Your task to perform on an android device: open app "Google Keep" Image 0: 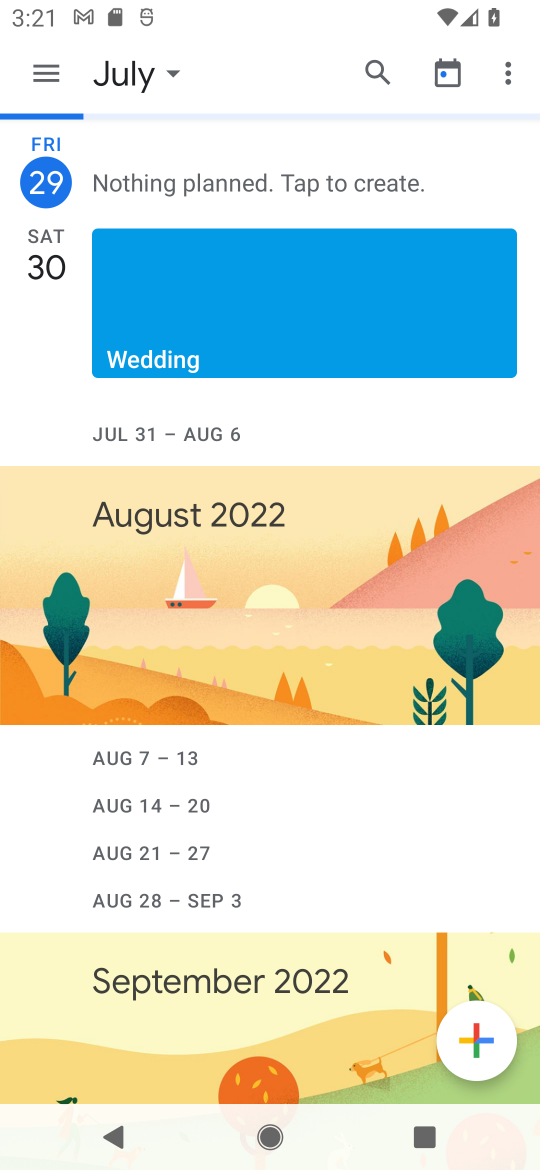
Step 0: press home button
Your task to perform on an android device: open app "Google Keep" Image 1: 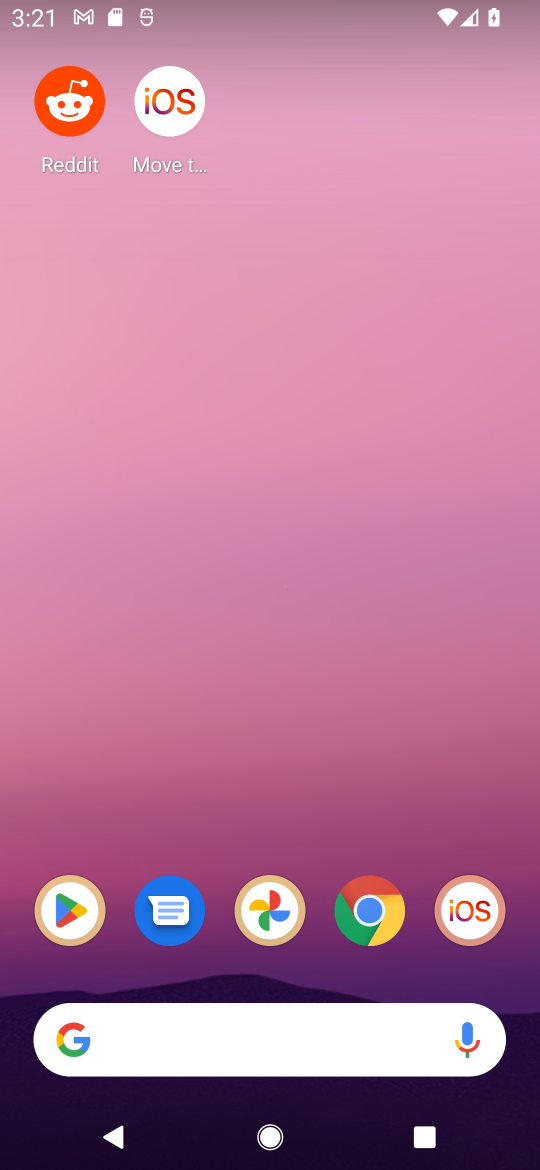
Step 1: drag from (233, 829) to (272, 43)
Your task to perform on an android device: open app "Google Keep" Image 2: 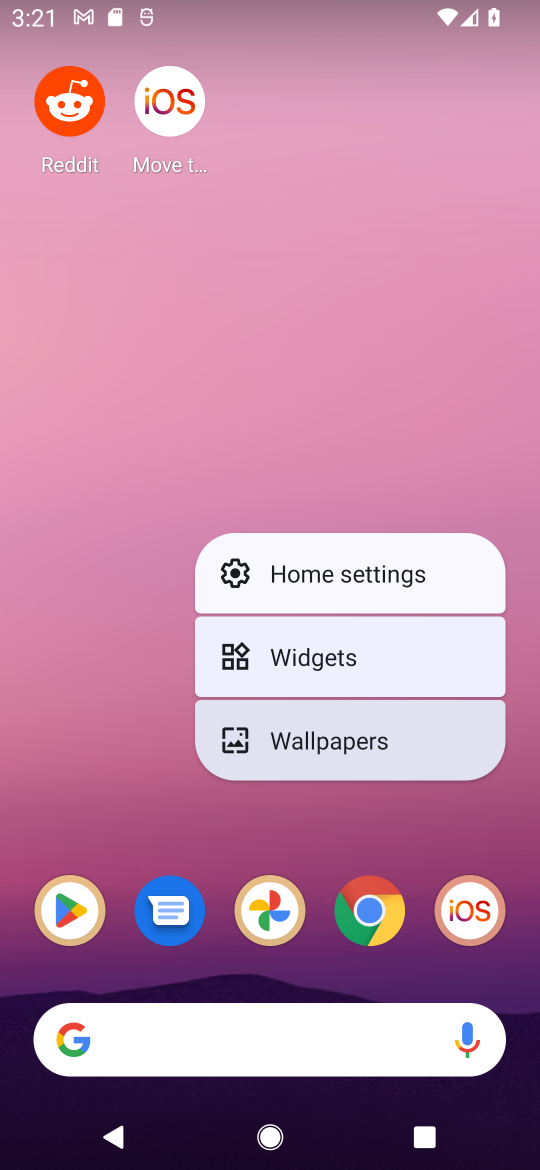
Step 2: click (200, 963)
Your task to perform on an android device: open app "Google Keep" Image 3: 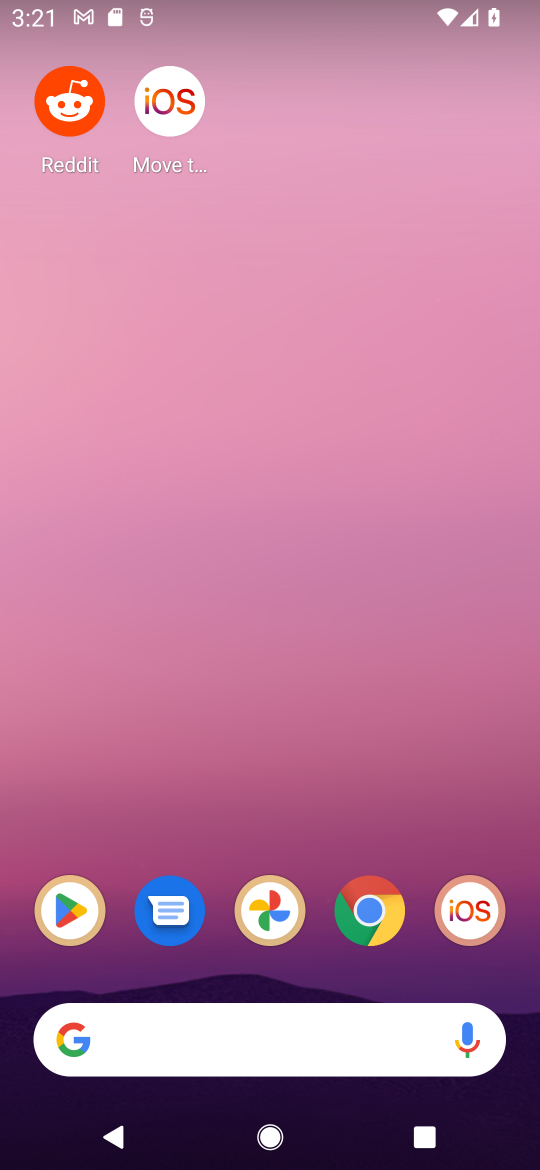
Step 3: drag from (211, 954) to (118, 139)
Your task to perform on an android device: open app "Google Keep" Image 4: 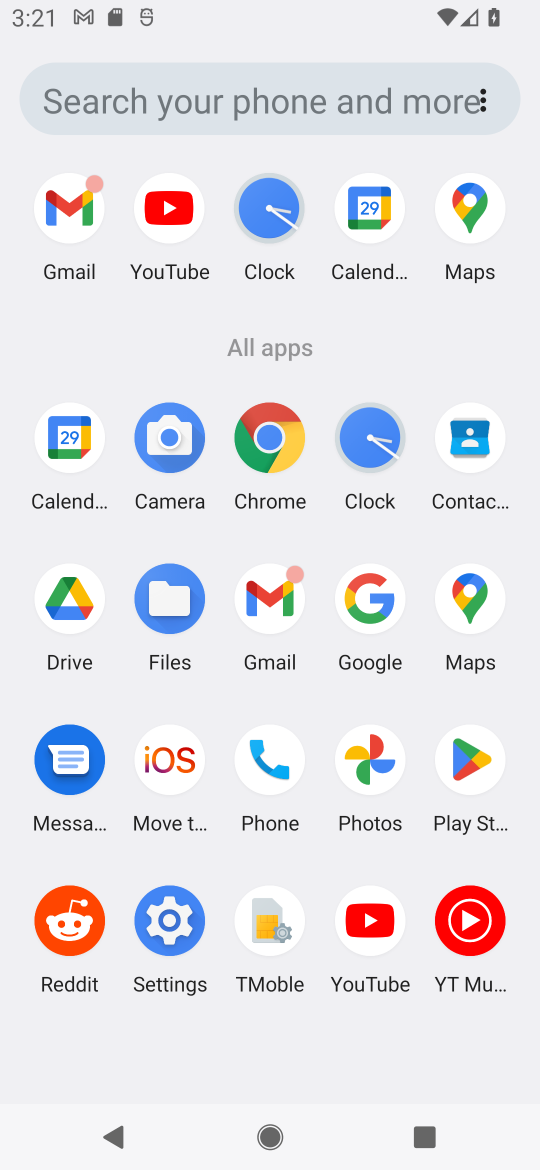
Step 4: click (483, 801)
Your task to perform on an android device: open app "Google Keep" Image 5: 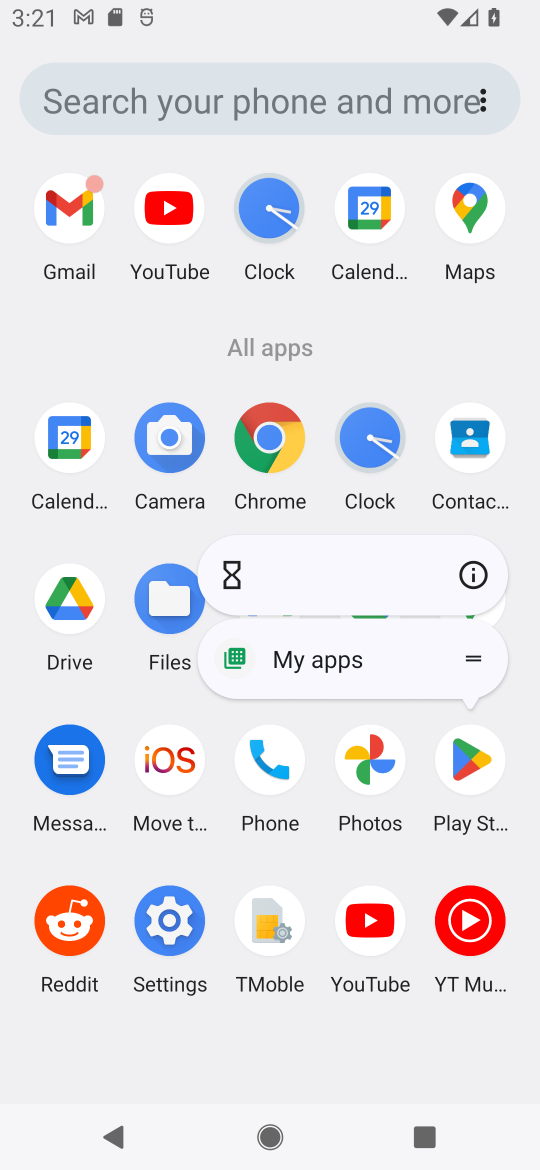
Step 5: click (478, 763)
Your task to perform on an android device: open app "Google Keep" Image 6: 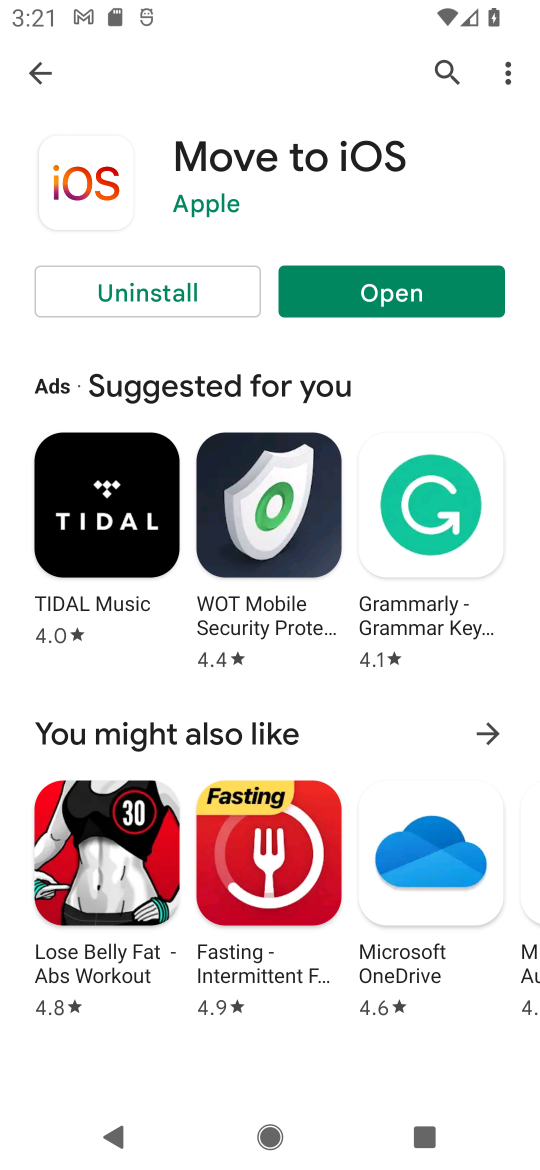
Step 6: press back button
Your task to perform on an android device: open app "Google Keep" Image 7: 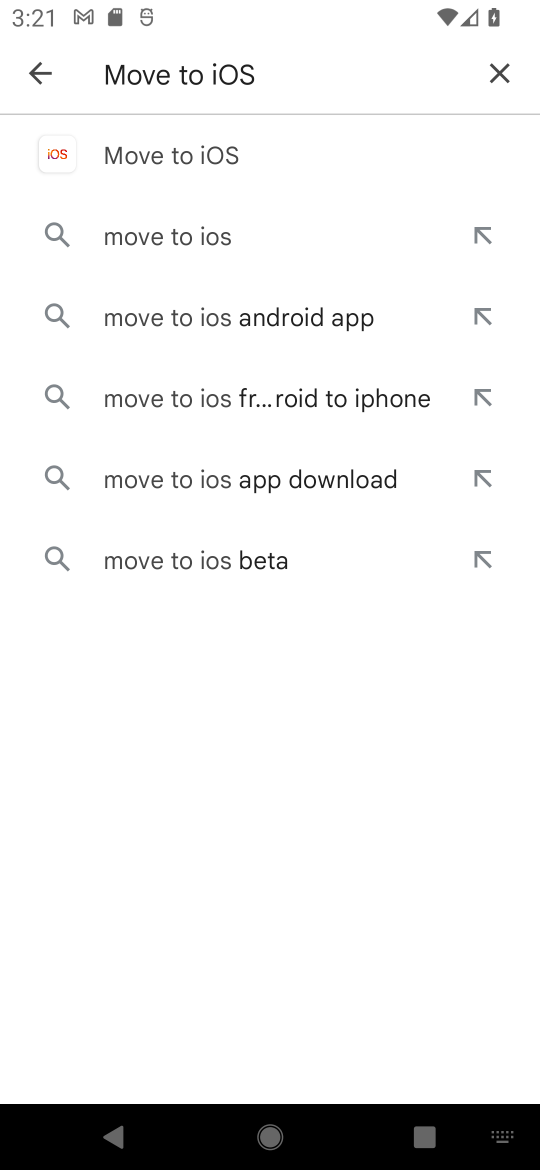
Step 7: click (505, 69)
Your task to perform on an android device: open app "Google Keep" Image 8: 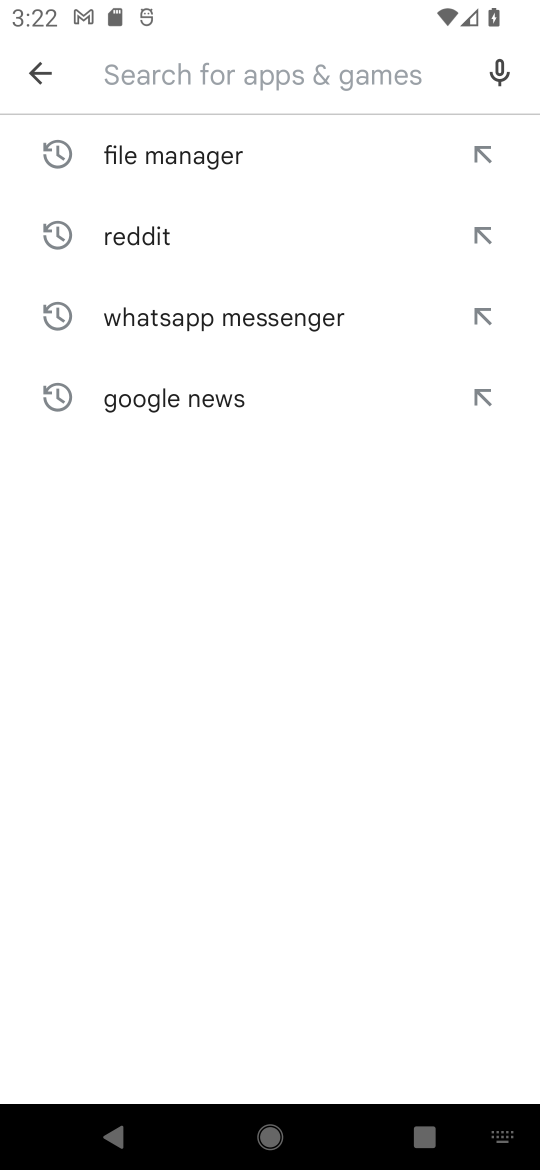
Step 8: type "Google Keep"
Your task to perform on an android device: open app "Google Keep" Image 9: 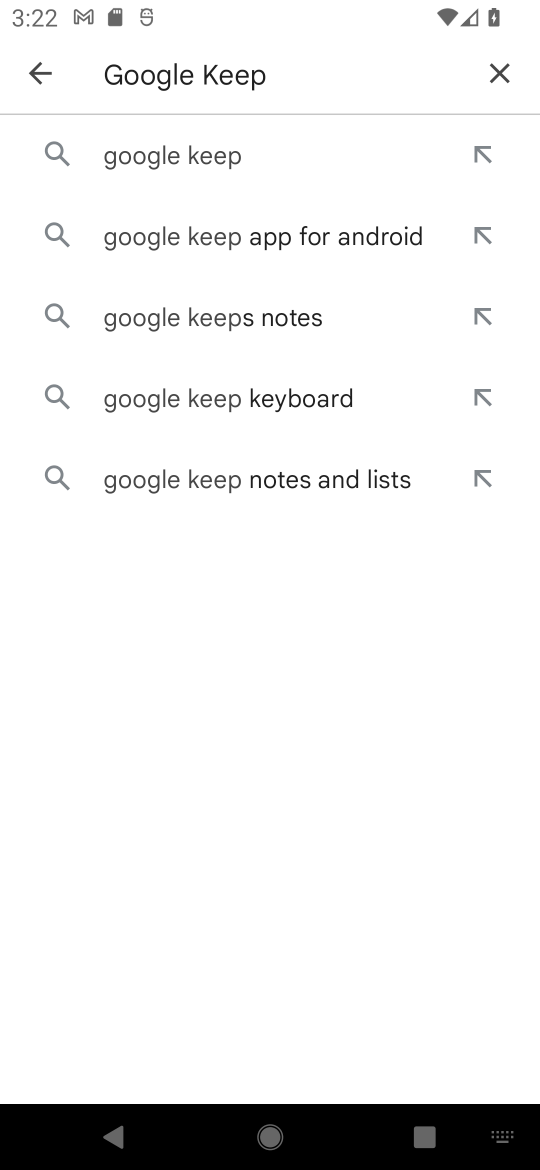
Step 9: click (219, 154)
Your task to perform on an android device: open app "Google Keep" Image 10: 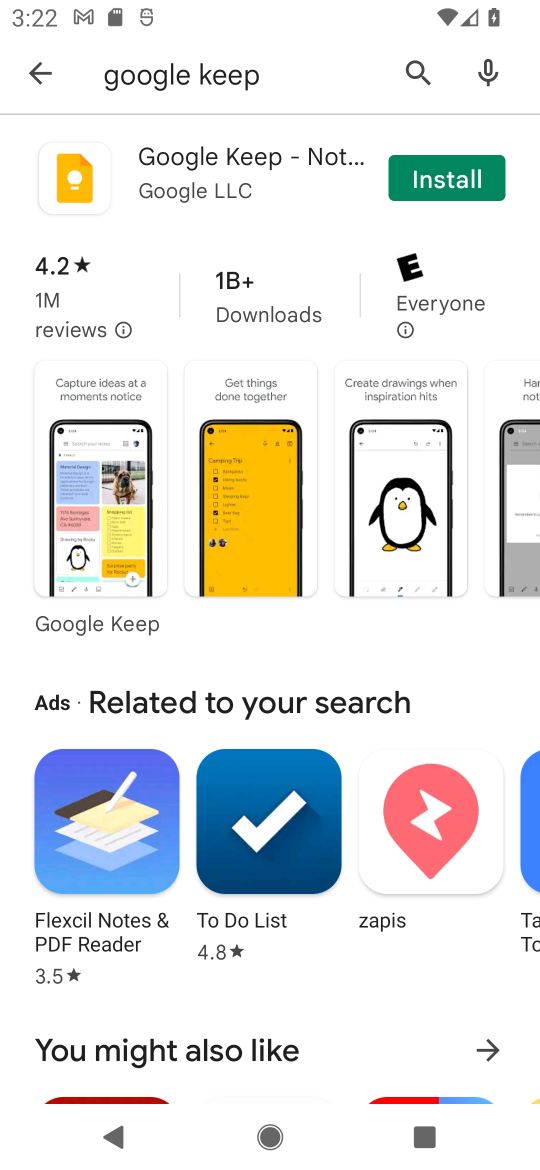
Step 10: click (422, 181)
Your task to perform on an android device: open app "Google Keep" Image 11: 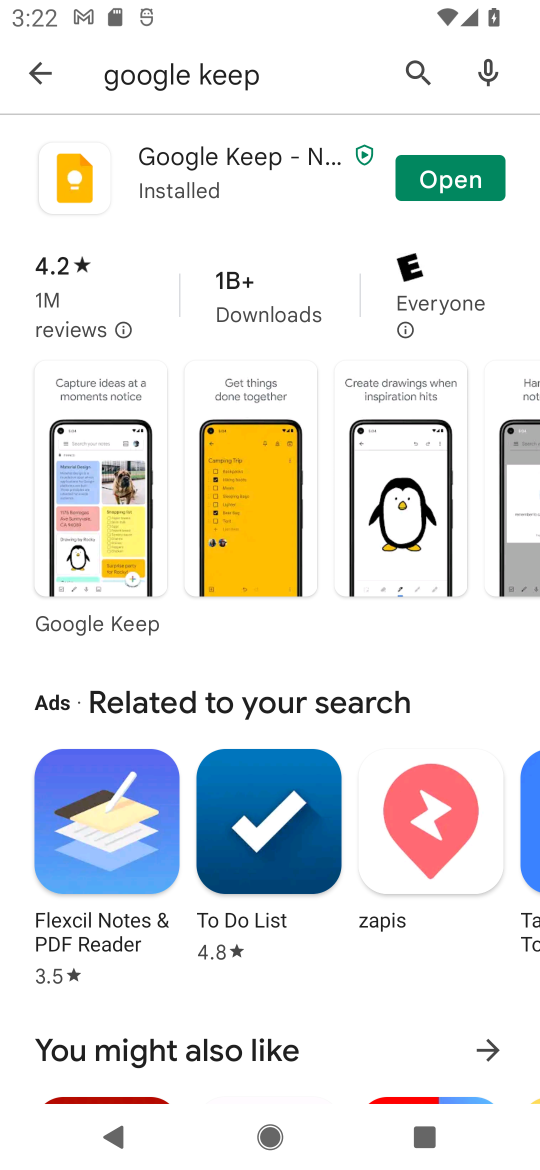
Step 11: click (466, 189)
Your task to perform on an android device: open app "Google Keep" Image 12: 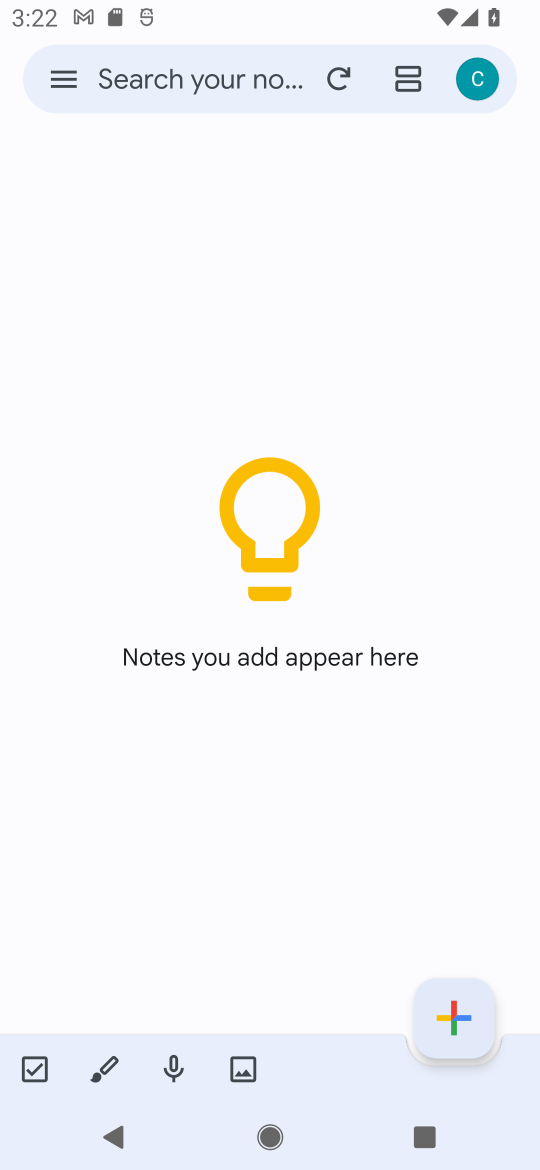
Step 12: task complete